Your task to perform on an android device: Open accessibility settings Image 0: 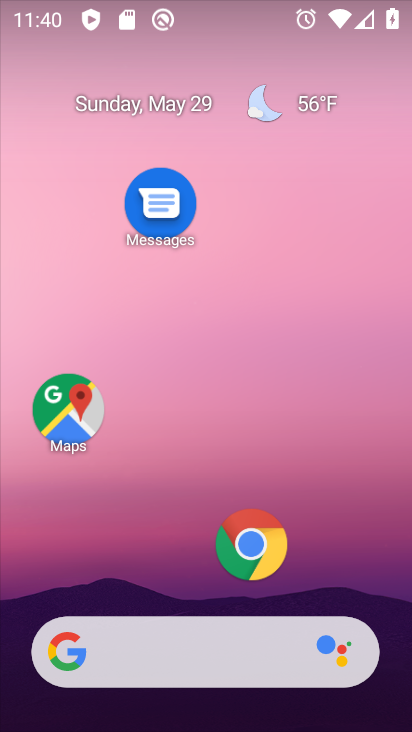
Step 0: drag from (179, 580) to (215, 142)
Your task to perform on an android device: Open accessibility settings Image 1: 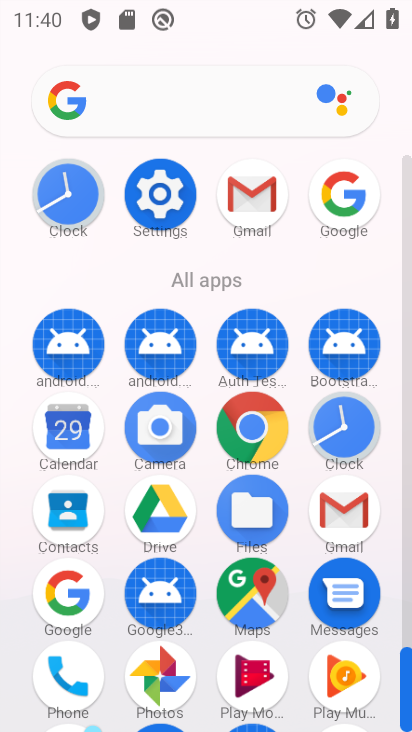
Step 1: click (156, 185)
Your task to perform on an android device: Open accessibility settings Image 2: 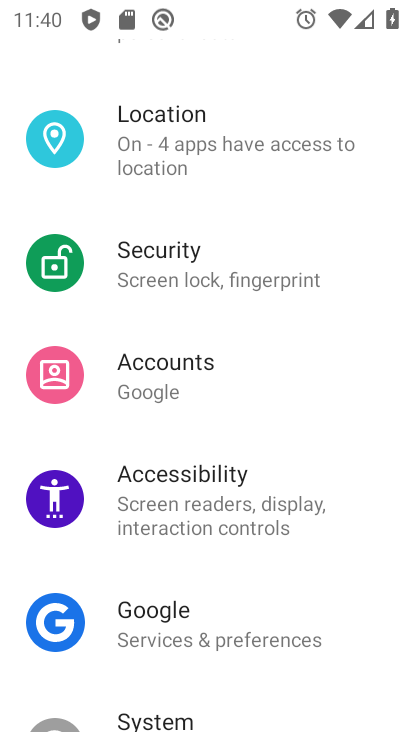
Step 2: click (205, 473)
Your task to perform on an android device: Open accessibility settings Image 3: 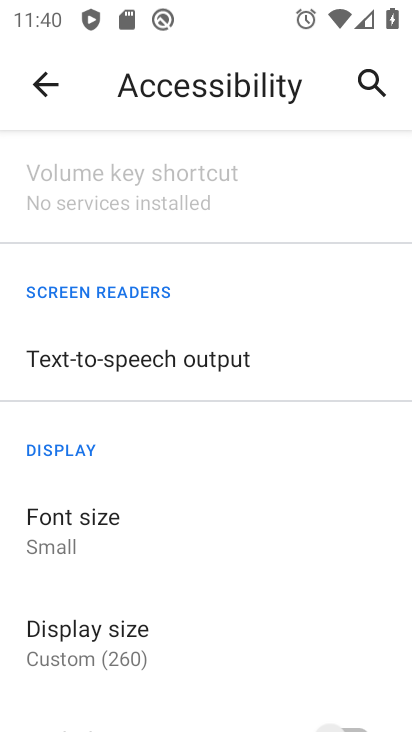
Step 3: task complete